Your task to perform on an android device: Open location settings Image 0: 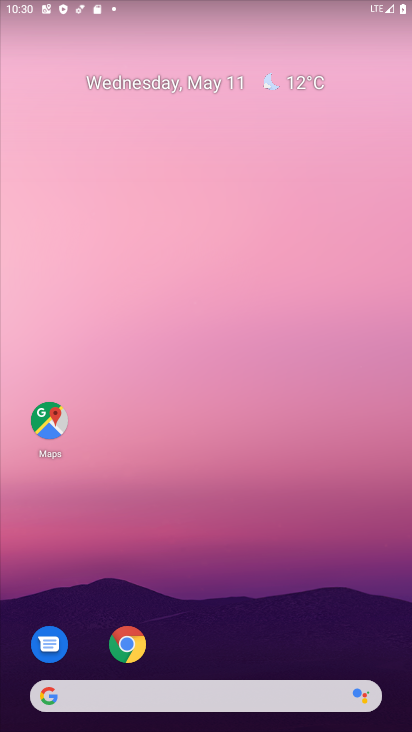
Step 0: drag from (258, 165) to (258, 23)
Your task to perform on an android device: Open location settings Image 1: 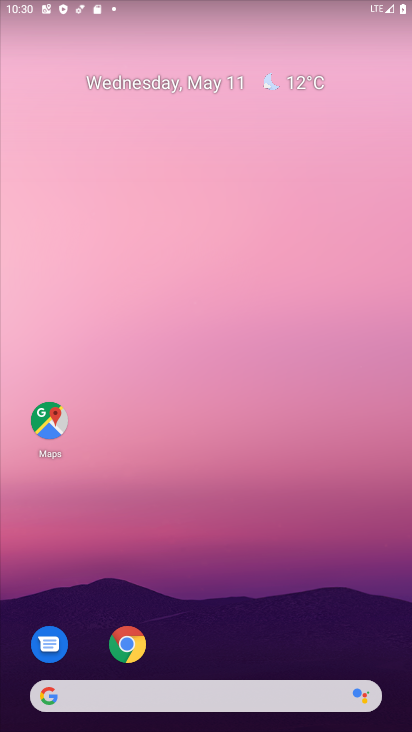
Step 1: drag from (327, 654) to (294, 79)
Your task to perform on an android device: Open location settings Image 2: 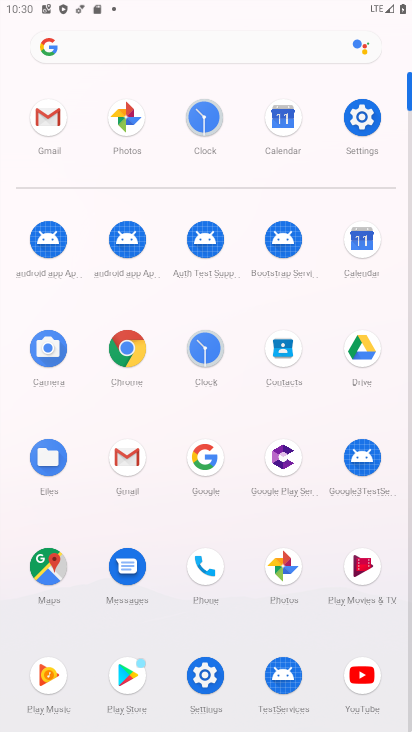
Step 2: click (211, 705)
Your task to perform on an android device: Open location settings Image 3: 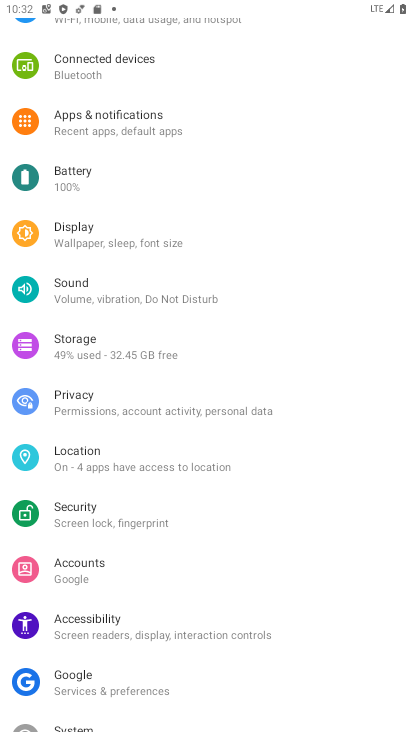
Step 3: drag from (187, 608) to (191, 479)
Your task to perform on an android device: Open location settings Image 4: 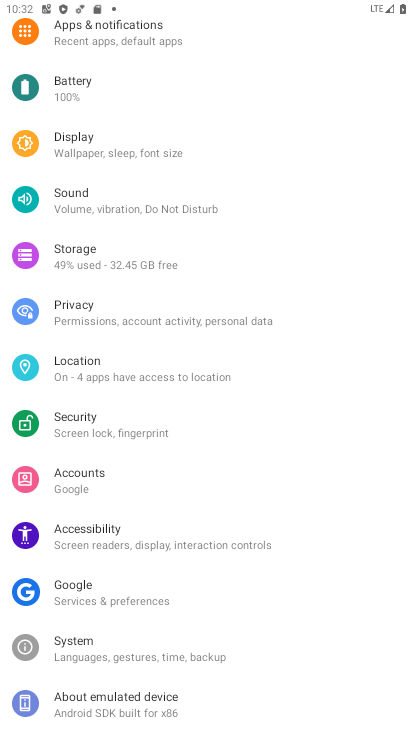
Step 4: click (175, 385)
Your task to perform on an android device: Open location settings Image 5: 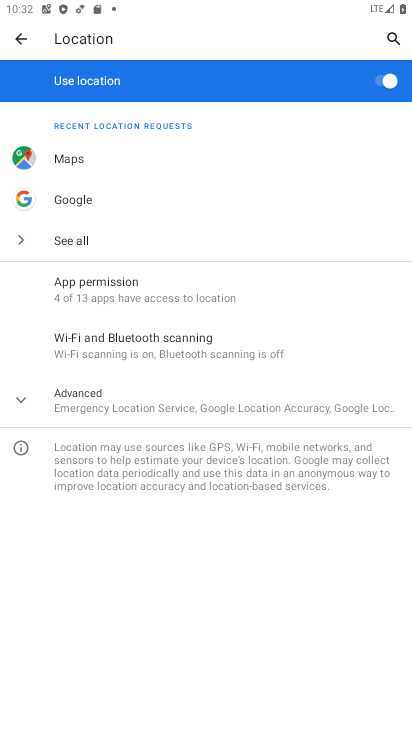
Step 5: task complete